Your task to perform on an android device: turn on showing notifications on the lock screen Image 0: 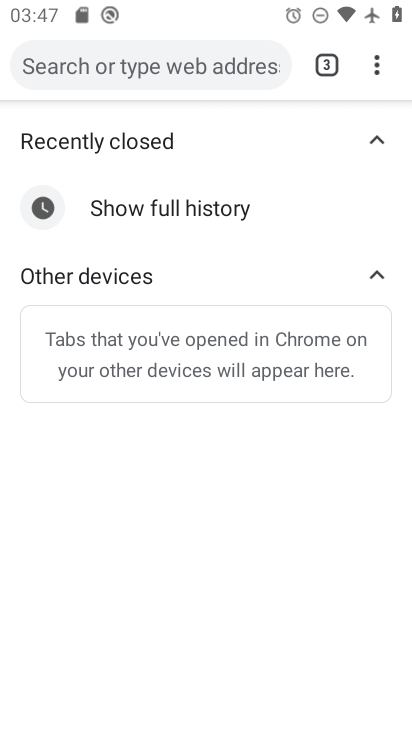
Step 0: press home button
Your task to perform on an android device: turn on showing notifications on the lock screen Image 1: 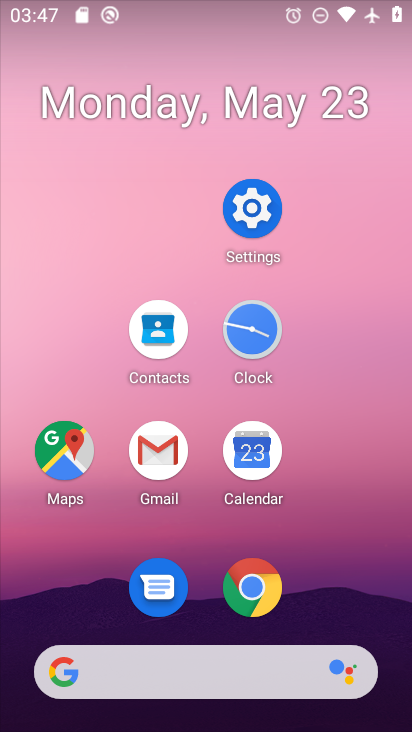
Step 1: click (251, 204)
Your task to perform on an android device: turn on showing notifications on the lock screen Image 2: 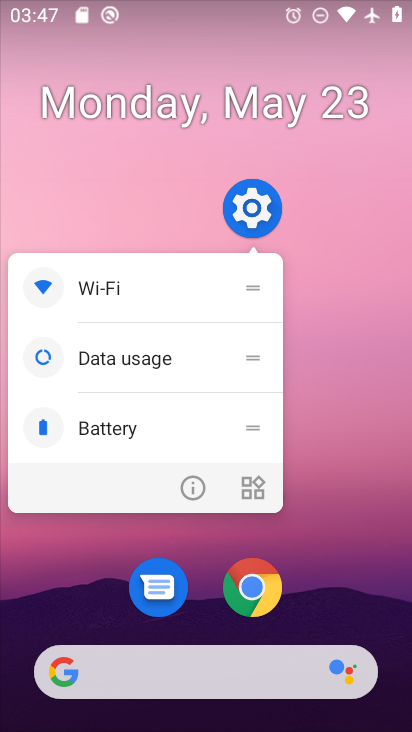
Step 2: click (250, 204)
Your task to perform on an android device: turn on showing notifications on the lock screen Image 3: 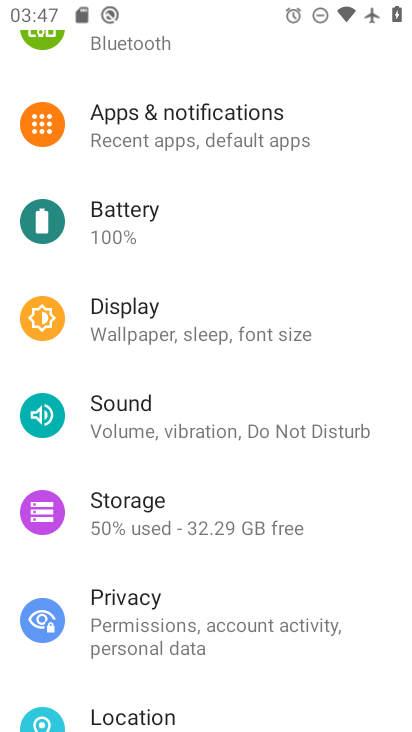
Step 3: click (176, 145)
Your task to perform on an android device: turn on showing notifications on the lock screen Image 4: 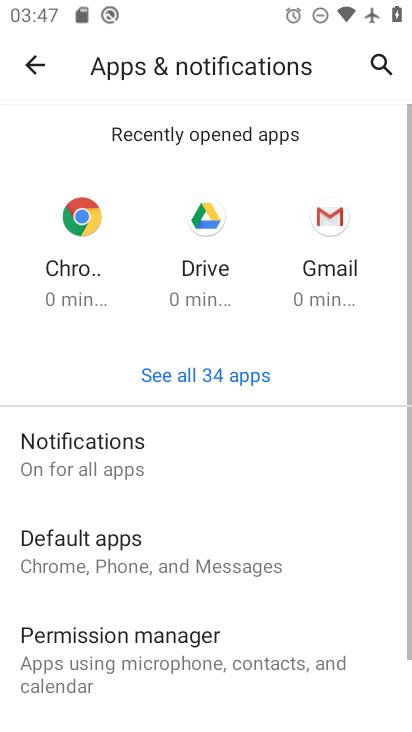
Step 4: click (174, 452)
Your task to perform on an android device: turn on showing notifications on the lock screen Image 5: 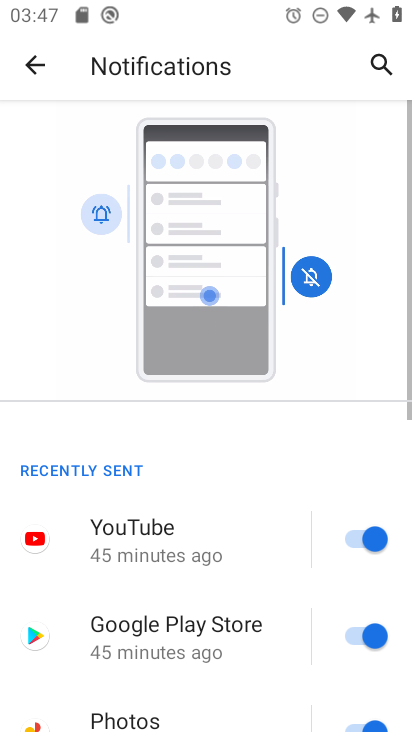
Step 5: drag from (203, 611) to (207, 176)
Your task to perform on an android device: turn on showing notifications on the lock screen Image 6: 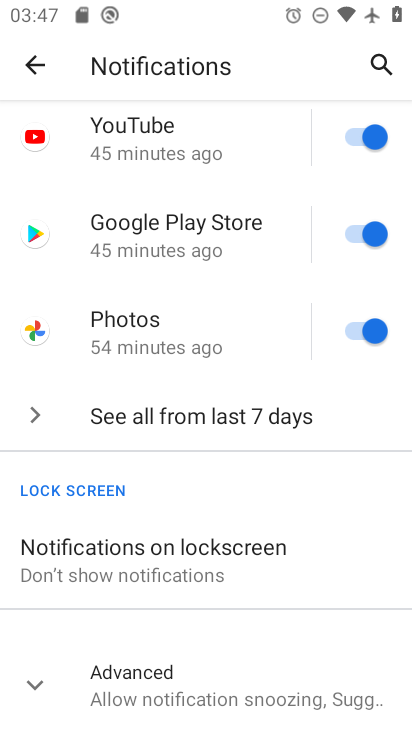
Step 6: click (206, 542)
Your task to perform on an android device: turn on showing notifications on the lock screen Image 7: 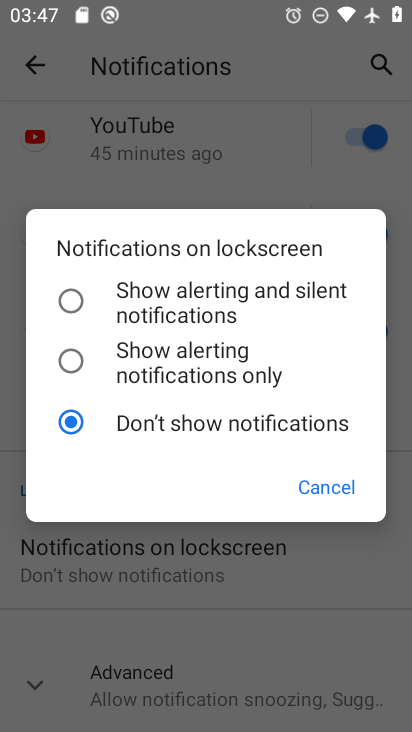
Step 7: click (190, 313)
Your task to perform on an android device: turn on showing notifications on the lock screen Image 8: 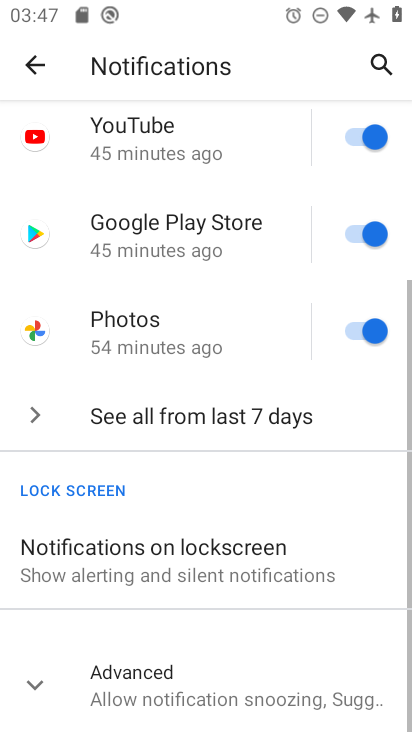
Step 8: task complete